Your task to perform on an android device: turn on improve location accuracy Image 0: 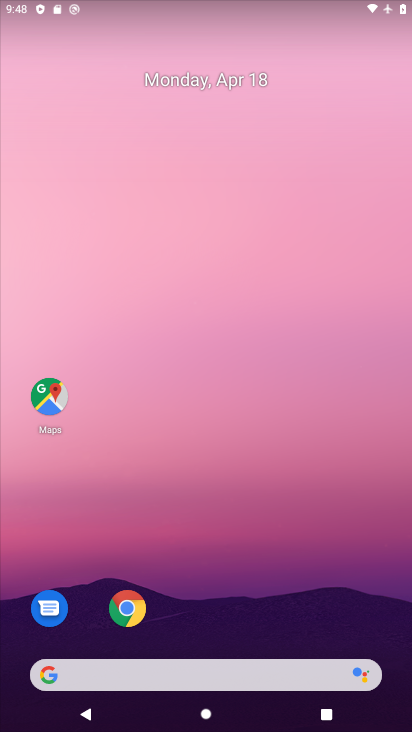
Step 0: drag from (294, 336) to (293, 217)
Your task to perform on an android device: turn on improve location accuracy Image 1: 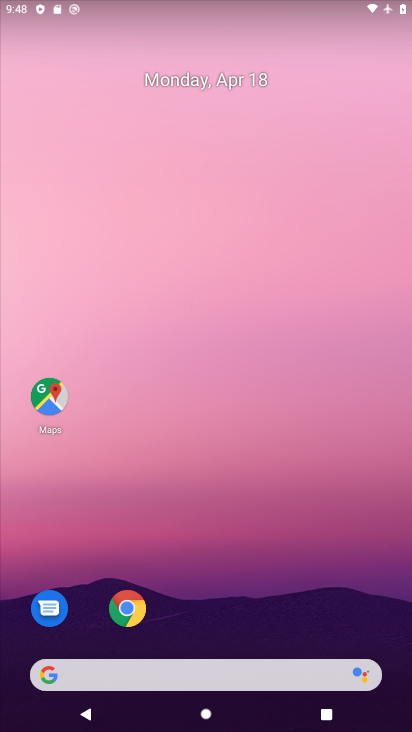
Step 1: drag from (279, 594) to (351, 236)
Your task to perform on an android device: turn on improve location accuracy Image 2: 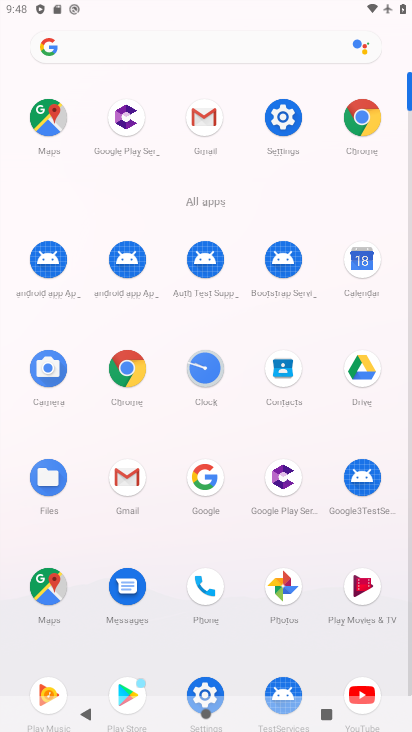
Step 2: click (279, 126)
Your task to perform on an android device: turn on improve location accuracy Image 3: 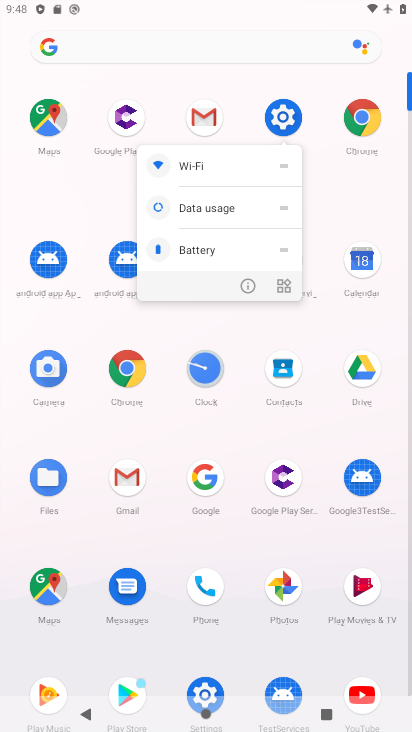
Step 3: click (278, 125)
Your task to perform on an android device: turn on improve location accuracy Image 4: 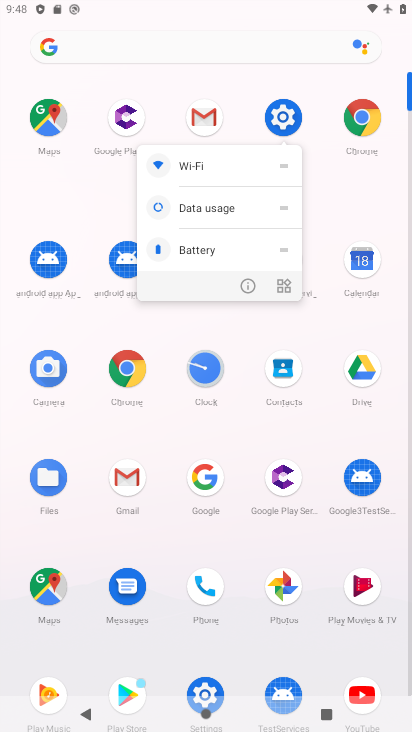
Step 4: click (287, 117)
Your task to perform on an android device: turn on improve location accuracy Image 5: 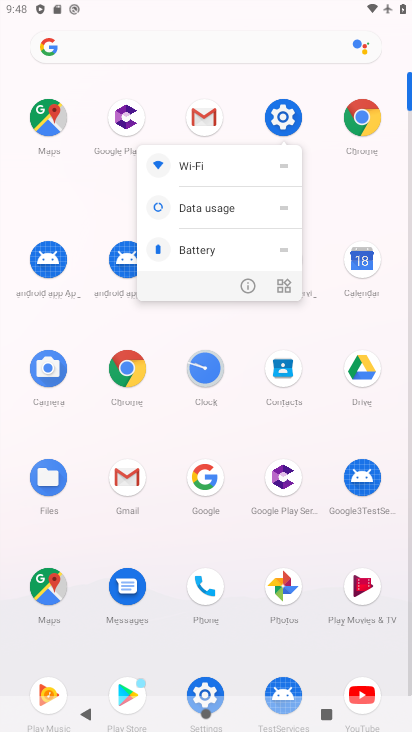
Step 5: click (285, 126)
Your task to perform on an android device: turn on improve location accuracy Image 6: 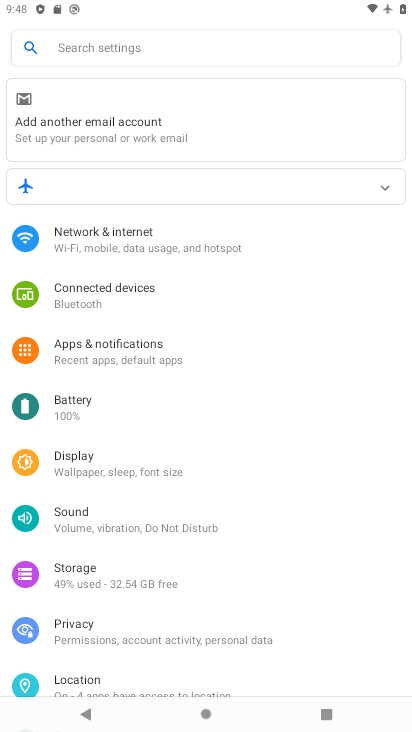
Step 6: drag from (141, 658) to (181, 444)
Your task to perform on an android device: turn on improve location accuracy Image 7: 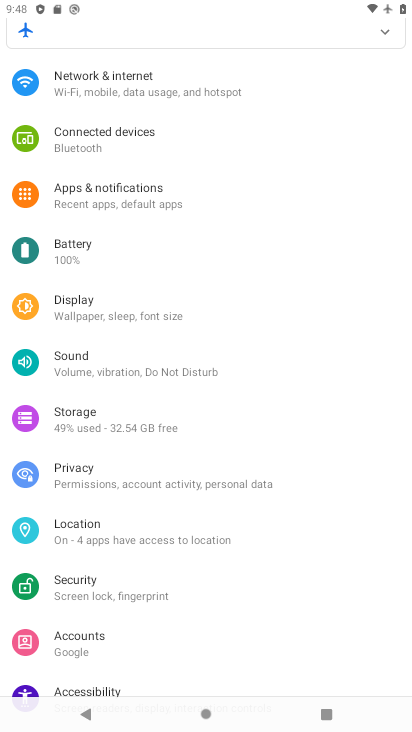
Step 7: click (139, 533)
Your task to perform on an android device: turn on improve location accuracy Image 8: 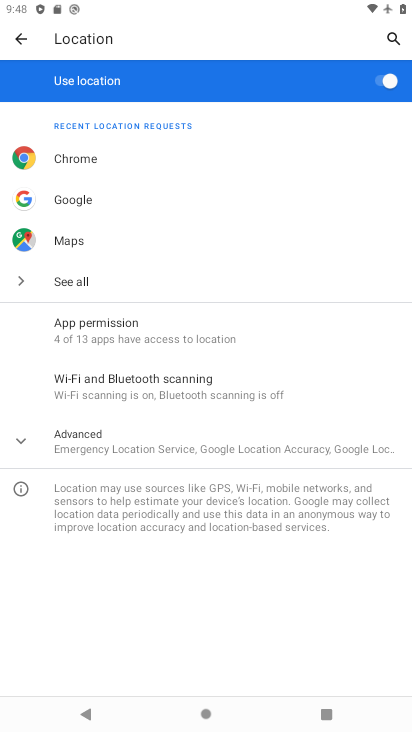
Step 8: click (20, 440)
Your task to perform on an android device: turn on improve location accuracy Image 9: 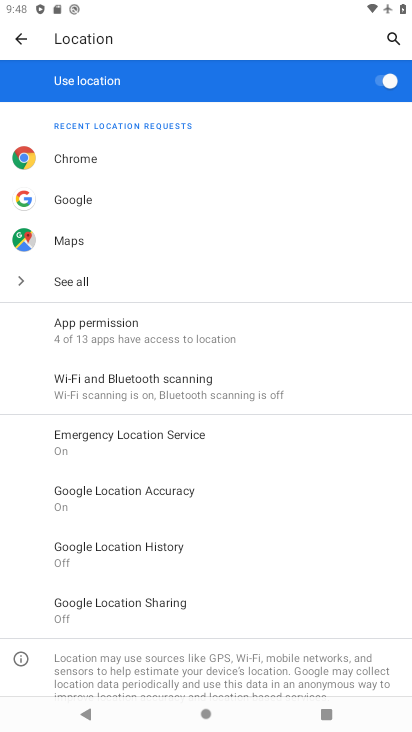
Step 9: click (180, 484)
Your task to perform on an android device: turn on improve location accuracy Image 10: 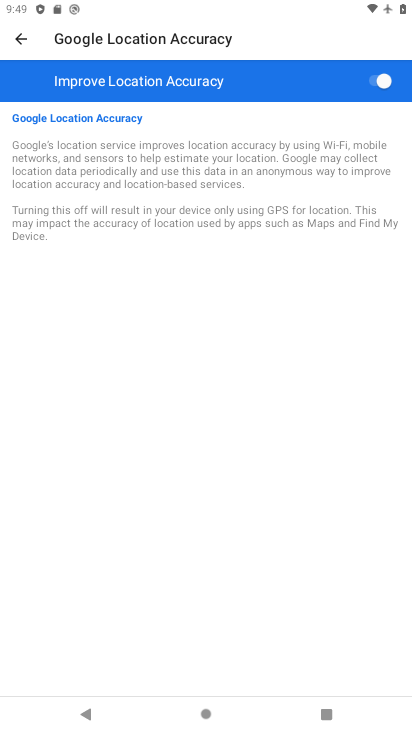
Step 10: task complete